Your task to perform on an android device: create a new album in the google photos Image 0: 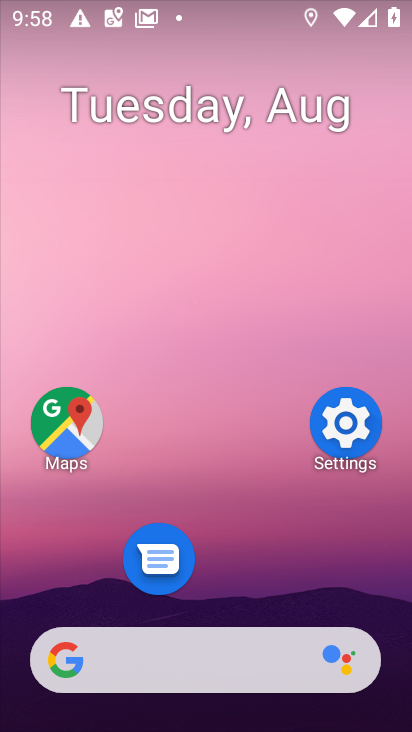
Step 0: drag from (207, 618) to (359, 51)
Your task to perform on an android device: create a new album in the google photos Image 1: 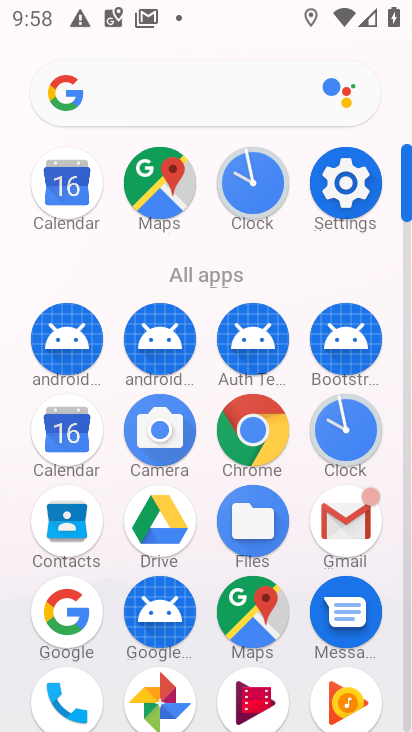
Step 1: drag from (206, 664) to (374, 69)
Your task to perform on an android device: create a new album in the google photos Image 2: 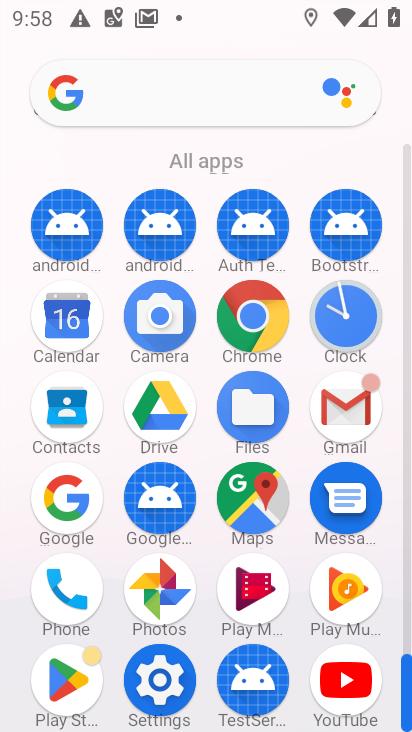
Step 2: click (151, 585)
Your task to perform on an android device: create a new album in the google photos Image 3: 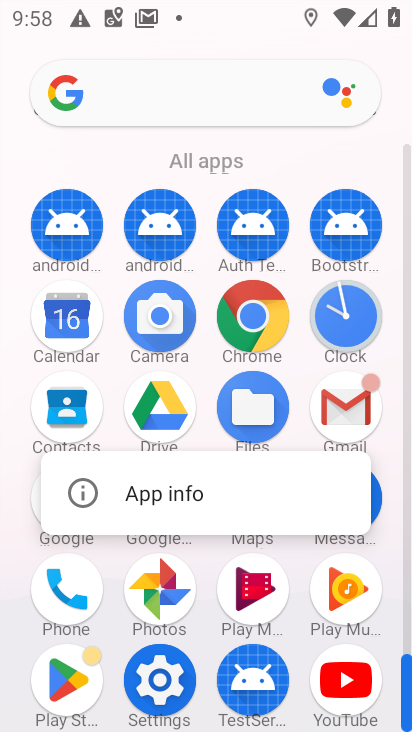
Step 3: click (155, 587)
Your task to perform on an android device: create a new album in the google photos Image 4: 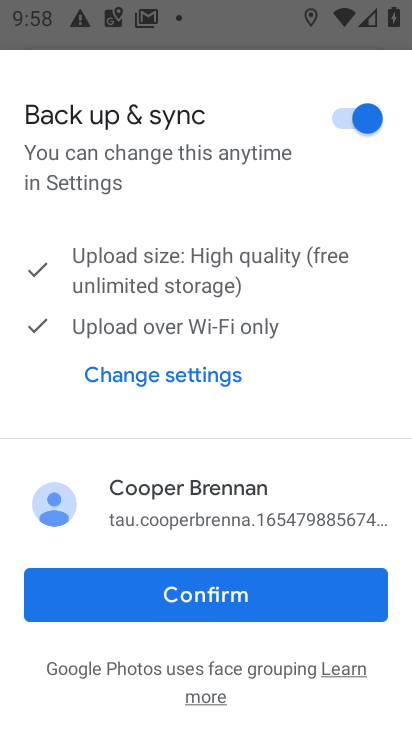
Step 4: click (205, 603)
Your task to perform on an android device: create a new album in the google photos Image 5: 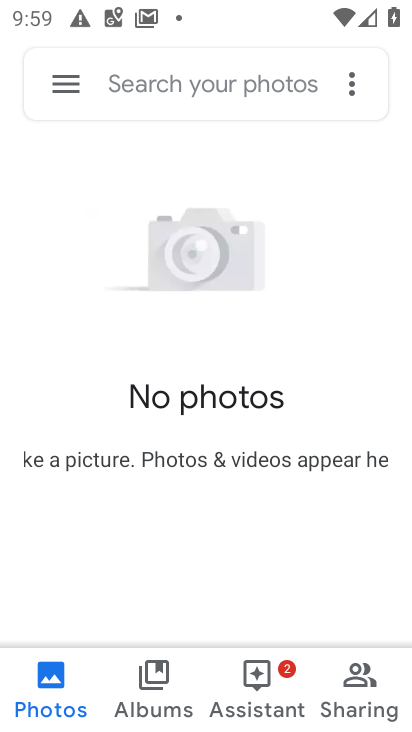
Step 5: click (152, 690)
Your task to perform on an android device: create a new album in the google photos Image 6: 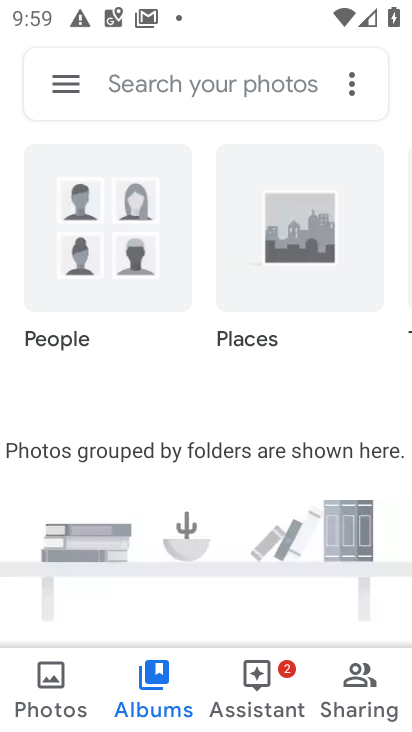
Step 6: task complete